Your task to perform on an android device: snooze an email in the gmail app Image 0: 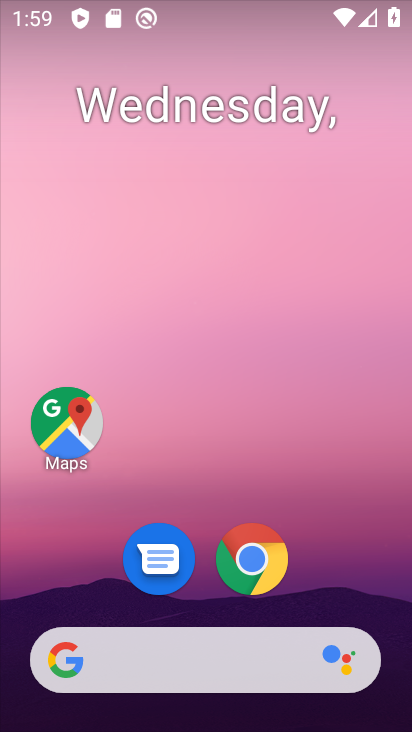
Step 0: press home button
Your task to perform on an android device: snooze an email in the gmail app Image 1: 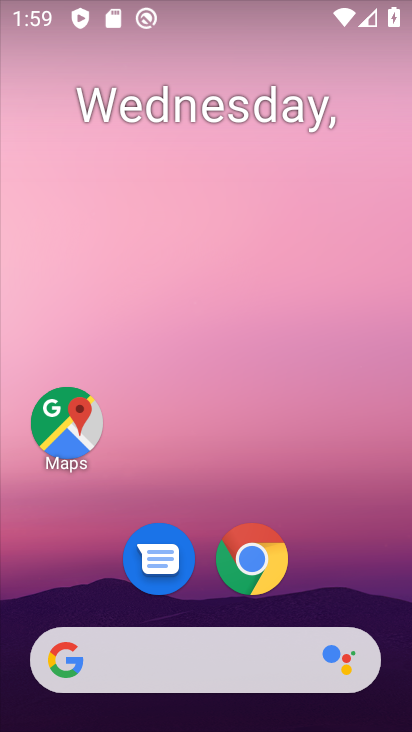
Step 1: drag from (363, 550) to (297, 106)
Your task to perform on an android device: snooze an email in the gmail app Image 2: 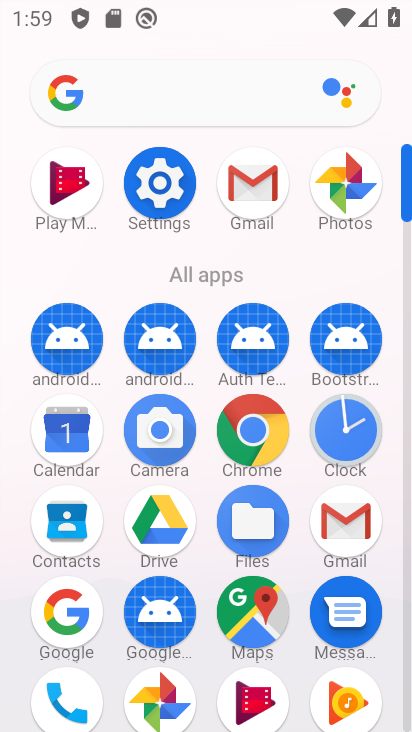
Step 2: click (251, 192)
Your task to perform on an android device: snooze an email in the gmail app Image 3: 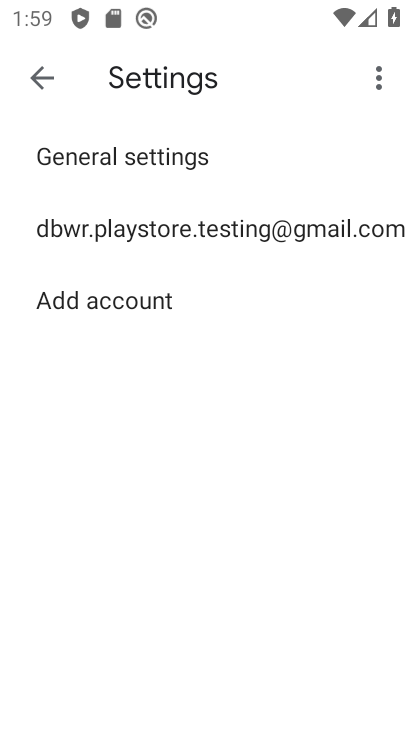
Step 3: click (28, 80)
Your task to perform on an android device: snooze an email in the gmail app Image 4: 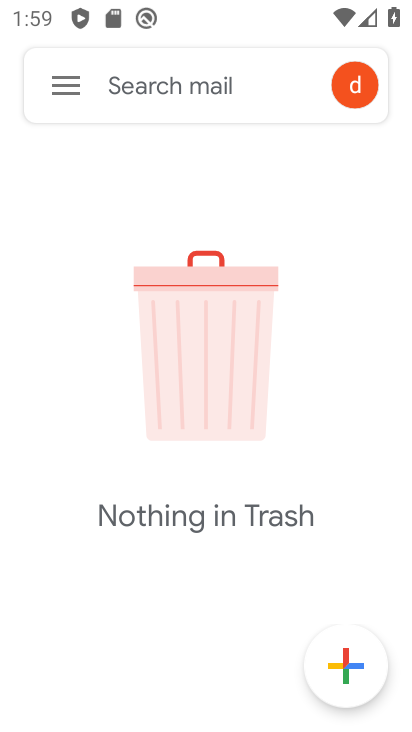
Step 4: click (54, 100)
Your task to perform on an android device: snooze an email in the gmail app Image 5: 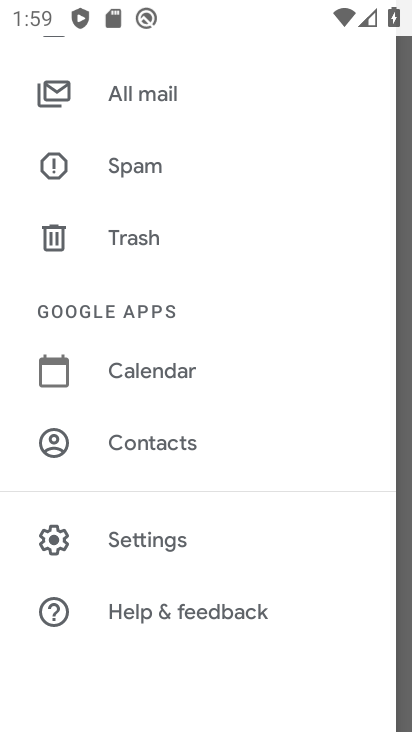
Step 5: task complete